Your task to perform on an android device: set the timer Image 0: 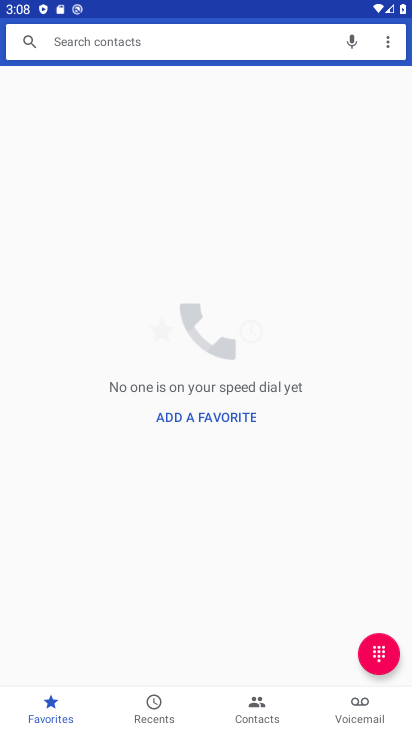
Step 0: drag from (211, 660) to (159, 309)
Your task to perform on an android device: set the timer Image 1: 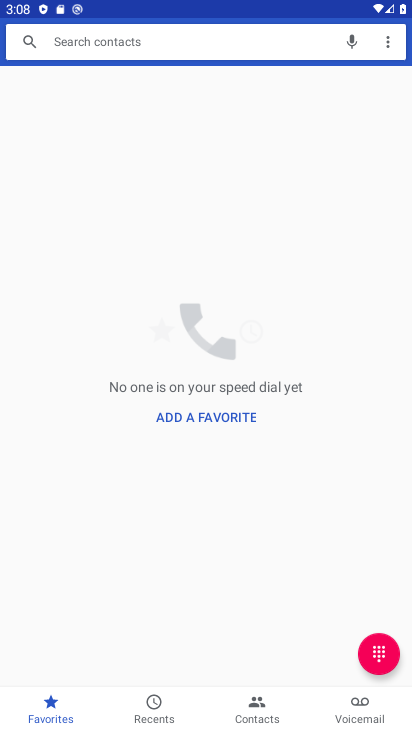
Step 1: press home button
Your task to perform on an android device: set the timer Image 2: 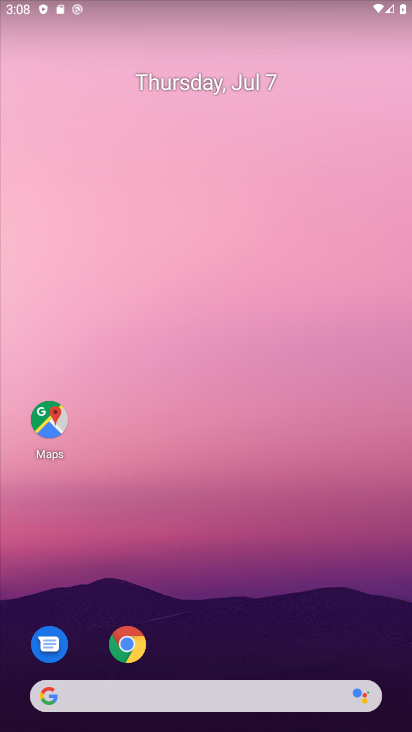
Step 2: drag from (225, 667) to (100, 105)
Your task to perform on an android device: set the timer Image 3: 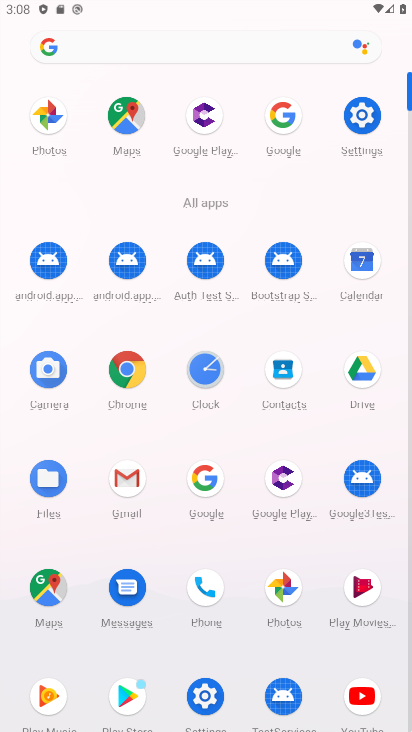
Step 3: click (205, 378)
Your task to perform on an android device: set the timer Image 4: 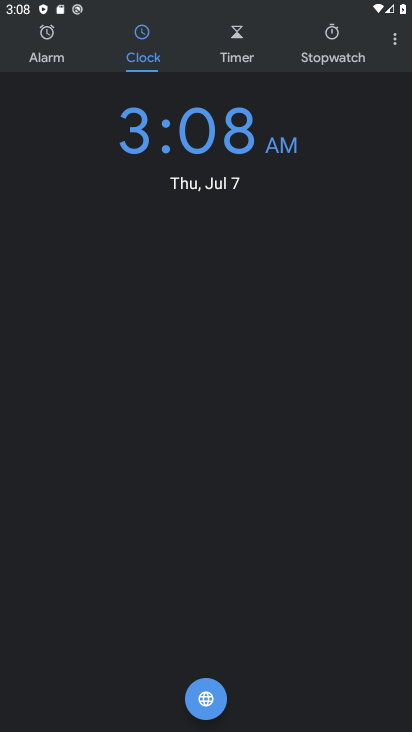
Step 4: click (221, 64)
Your task to perform on an android device: set the timer Image 5: 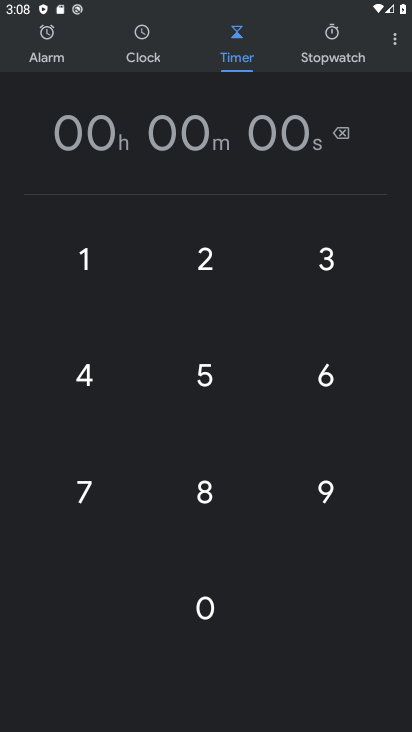
Step 5: click (222, 262)
Your task to perform on an android device: set the timer Image 6: 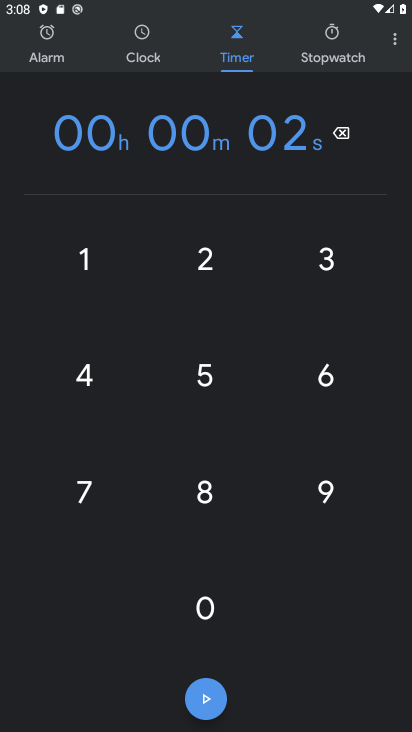
Step 6: click (197, 328)
Your task to perform on an android device: set the timer Image 7: 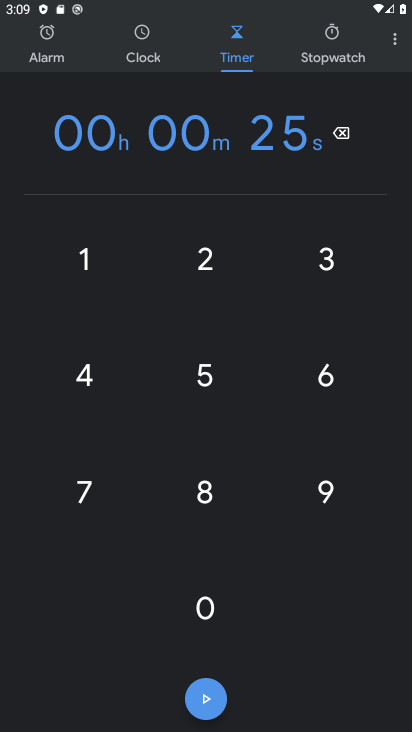
Step 7: click (221, 717)
Your task to perform on an android device: set the timer Image 8: 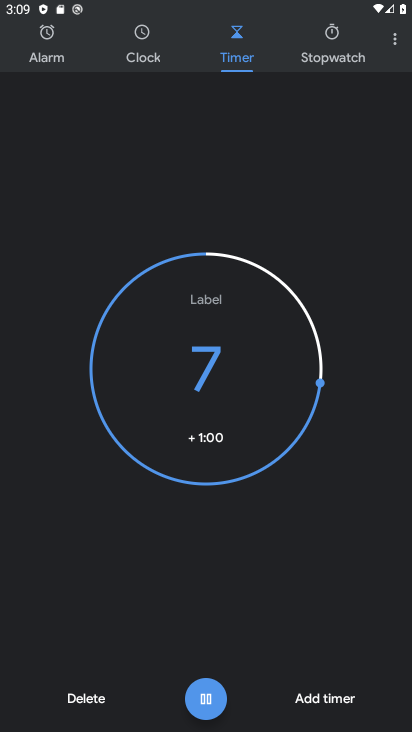
Step 8: task complete